Your task to perform on an android device: Go to Wikipedia Image 0: 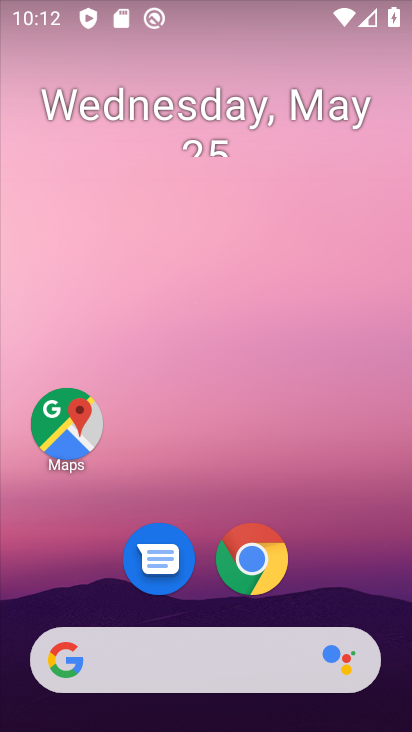
Step 0: drag from (356, 577) to (304, 183)
Your task to perform on an android device: Go to Wikipedia Image 1: 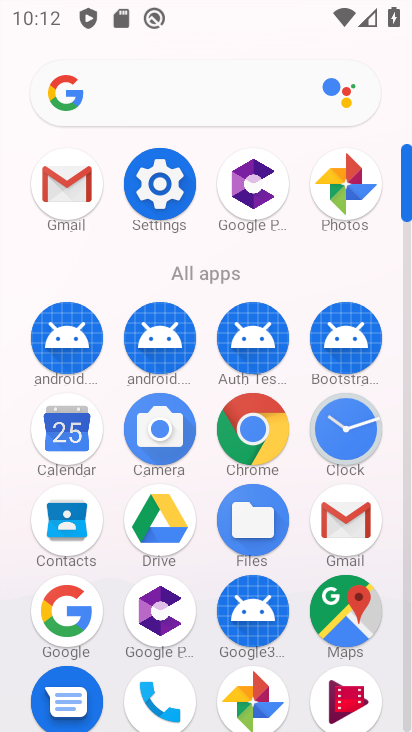
Step 1: click (45, 630)
Your task to perform on an android device: Go to Wikipedia Image 2: 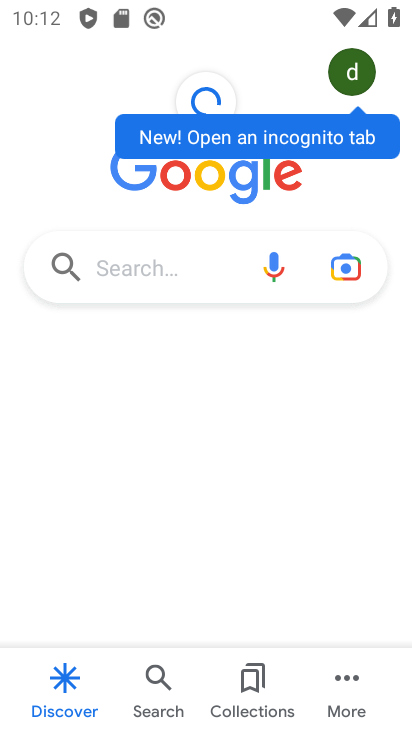
Step 2: click (144, 268)
Your task to perform on an android device: Go to Wikipedia Image 3: 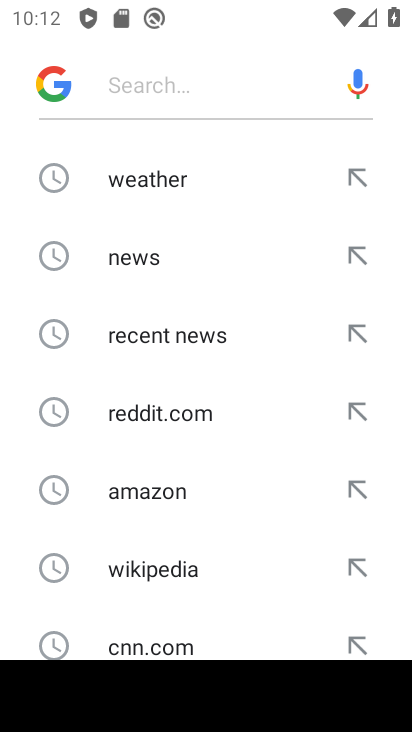
Step 3: click (166, 576)
Your task to perform on an android device: Go to Wikipedia Image 4: 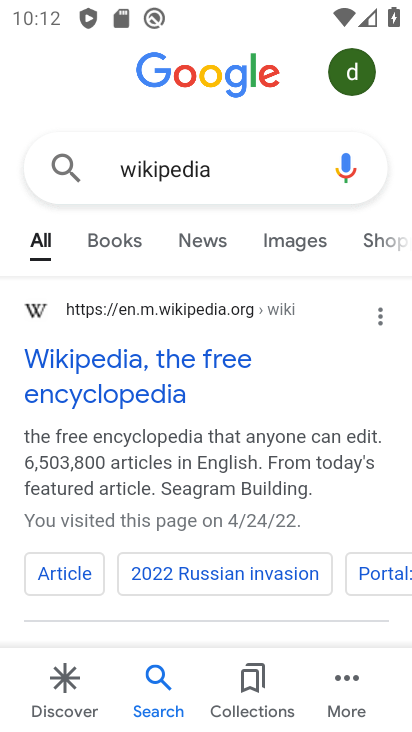
Step 4: click (122, 369)
Your task to perform on an android device: Go to Wikipedia Image 5: 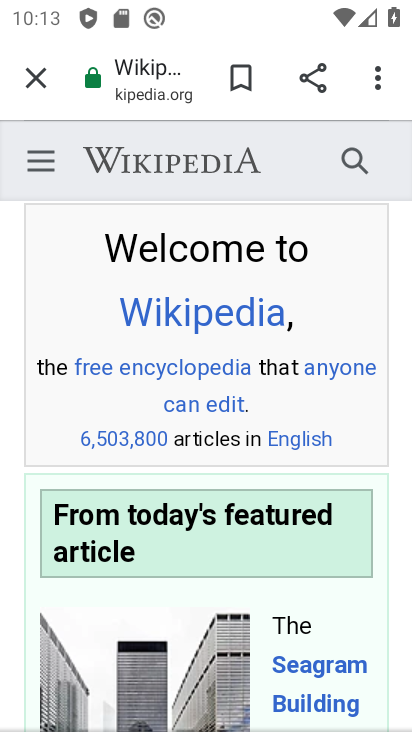
Step 5: task complete